Your task to perform on an android device: turn off smart reply in the gmail app Image 0: 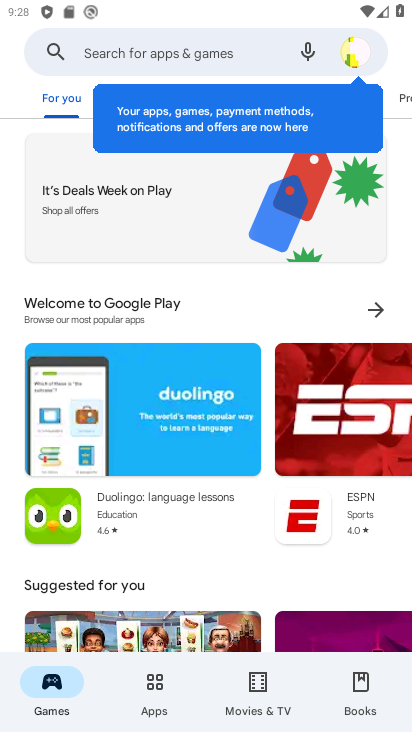
Step 0: press home button
Your task to perform on an android device: turn off smart reply in the gmail app Image 1: 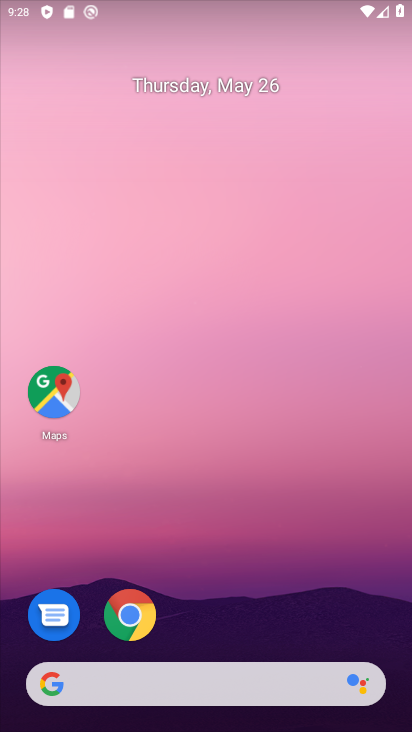
Step 1: drag from (140, 481) to (122, 89)
Your task to perform on an android device: turn off smart reply in the gmail app Image 2: 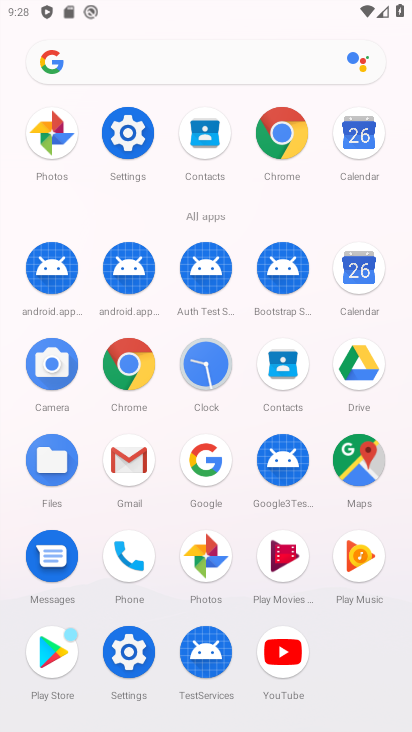
Step 2: click (126, 471)
Your task to perform on an android device: turn off smart reply in the gmail app Image 3: 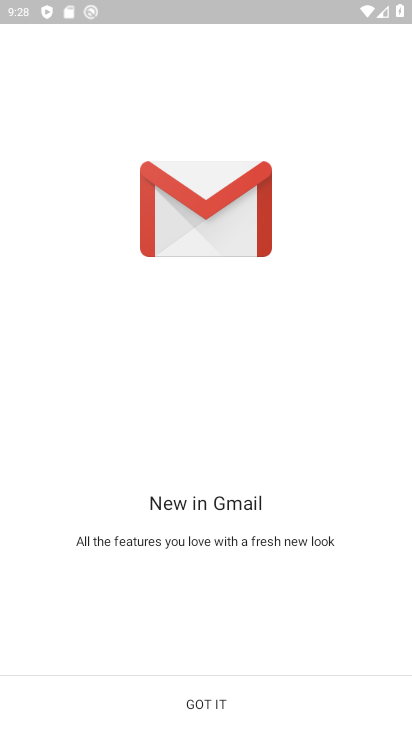
Step 3: click (216, 703)
Your task to perform on an android device: turn off smart reply in the gmail app Image 4: 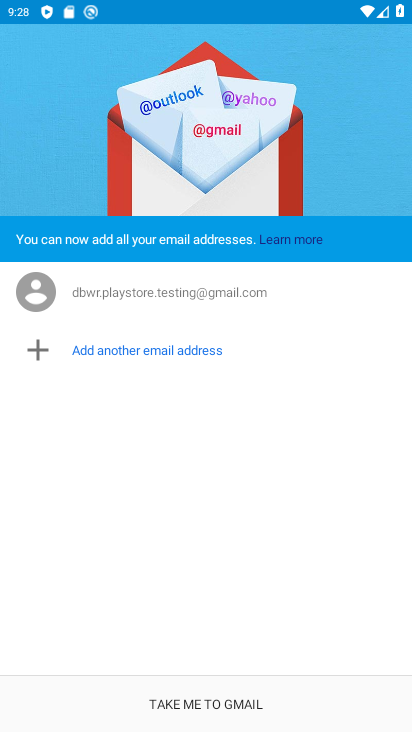
Step 4: click (245, 706)
Your task to perform on an android device: turn off smart reply in the gmail app Image 5: 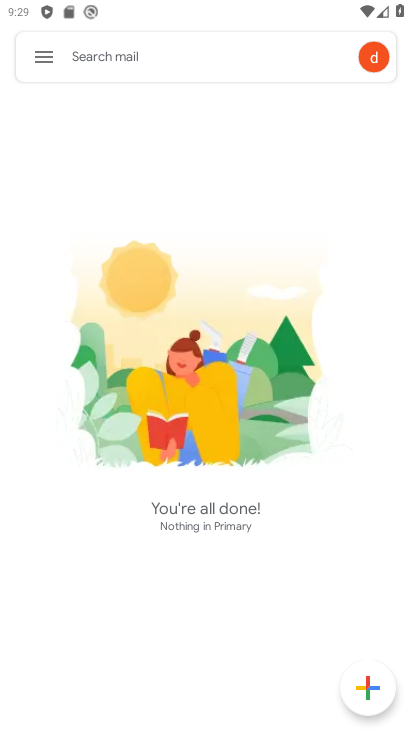
Step 5: click (41, 59)
Your task to perform on an android device: turn off smart reply in the gmail app Image 6: 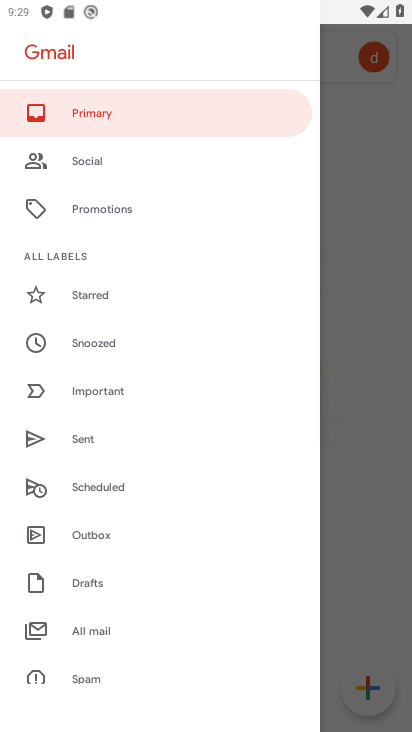
Step 6: drag from (119, 646) to (128, 262)
Your task to perform on an android device: turn off smart reply in the gmail app Image 7: 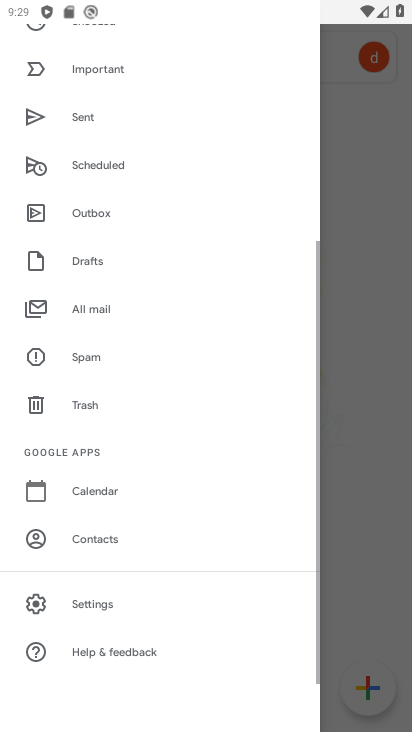
Step 7: click (96, 605)
Your task to perform on an android device: turn off smart reply in the gmail app Image 8: 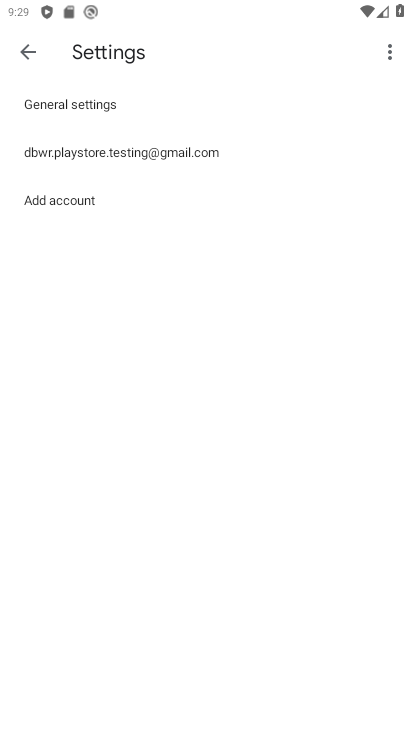
Step 8: click (118, 146)
Your task to perform on an android device: turn off smart reply in the gmail app Image 9: 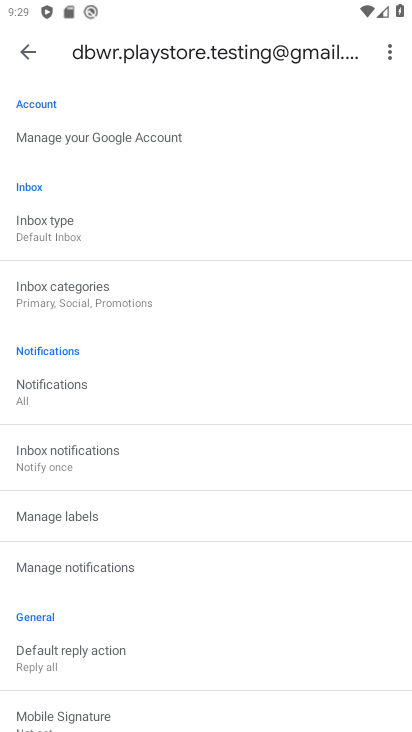
Step 9: drag from (172, 636) to (181, 151)
Your task to perform on an android device: turn off smart reply in the gmail app Image 10: 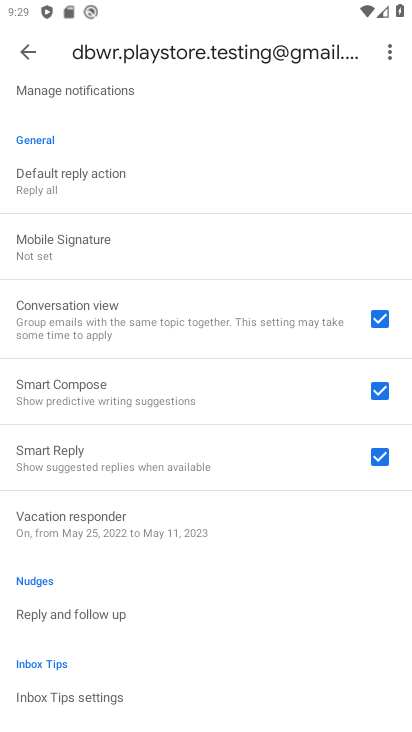
Step 10: click (376, 462)
Your task to perform on an android device: turn off smart reply in the gmail app Image 11: 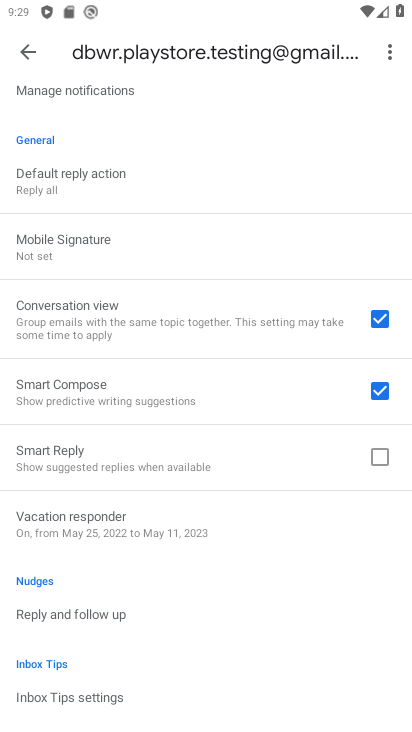
Step 11: task complete